Your task to perform on an android device: set an alarm Image 0: 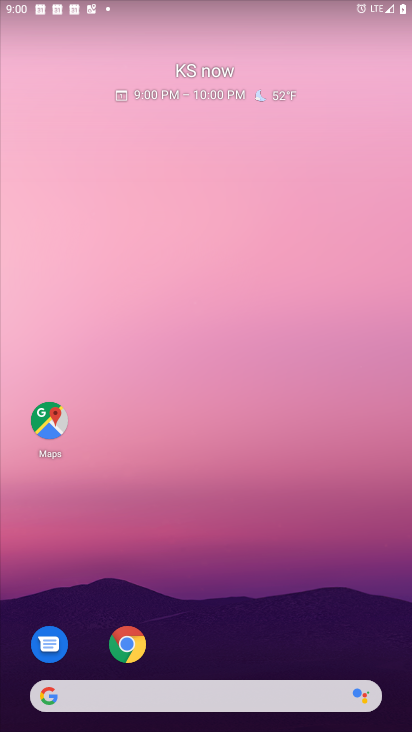
Step 0: drag from (375, 640) to (253, 119)
Your task to perform on an android device: set an alarm Image 1: 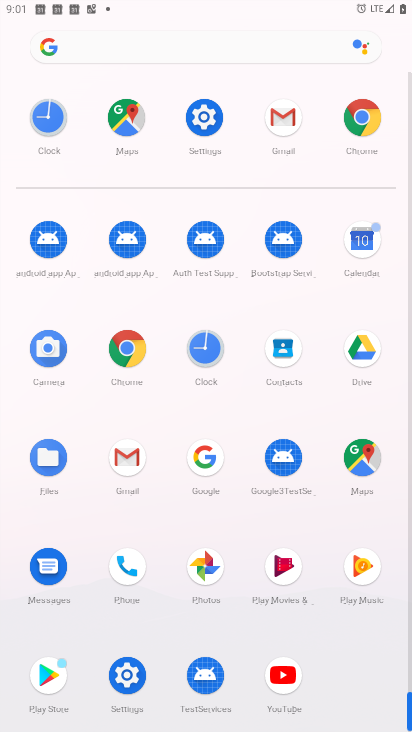
Step 1: click (202, 345)
Your task to perform on an android device: set an alarm Image 2: 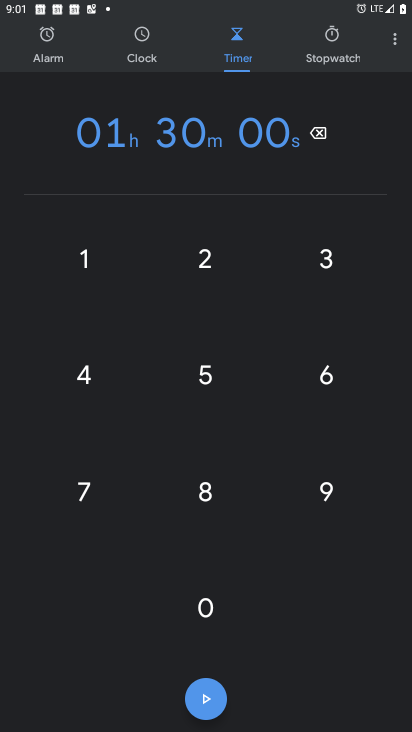
Step 2: click (47, 46)
Your task to perform on an android device: set an alarm Image 3: 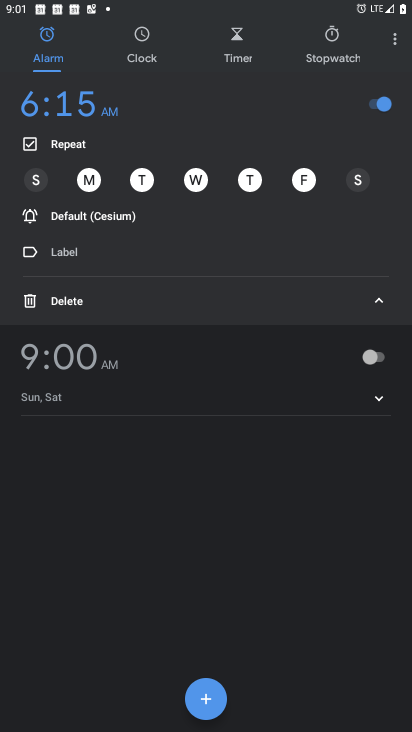
Step 3: click (356, 178)
Your task to perform on an android device: set an alarm Image 4: 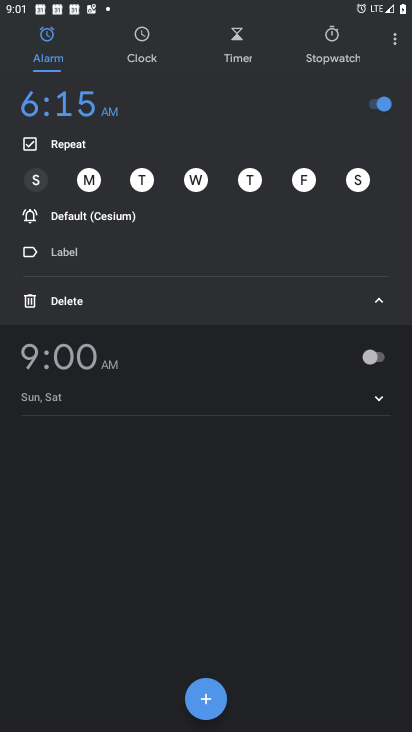
Step 4: click (380, 298)
Your task to perform on an android device: set an alarm Image 5: 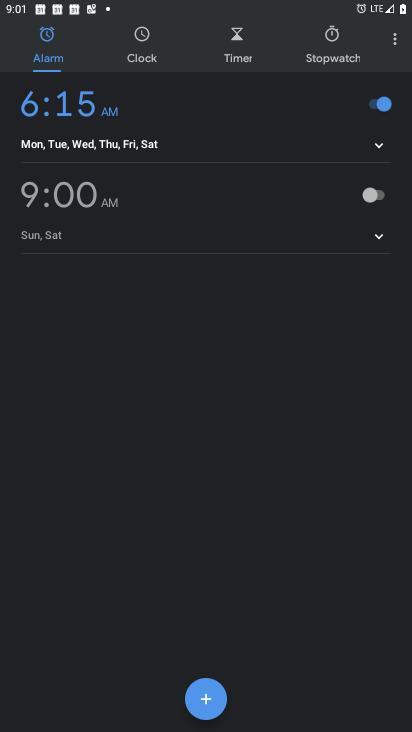
Step 5: click (75, 207)
Your task to perform on an android device: set an alarm Image 6: 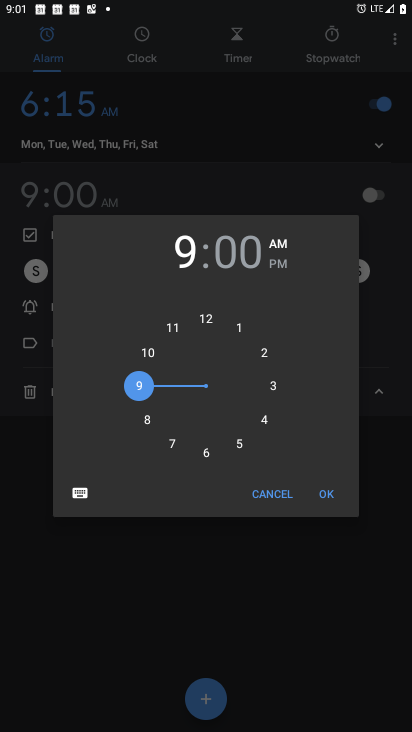
Step 6: click (206, 452)
Your task to perform on an android device: set an alarm Image 7: 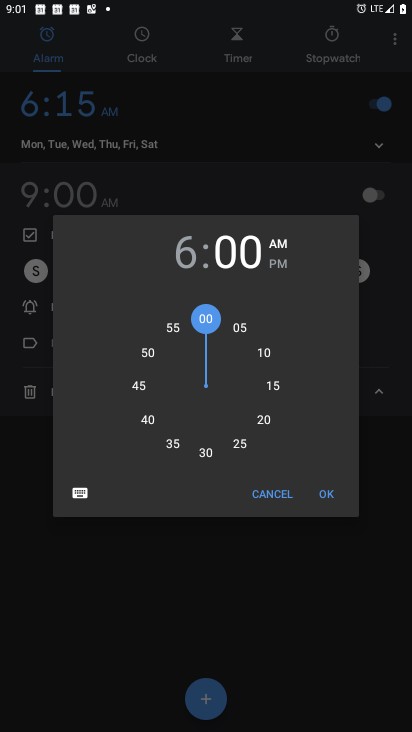
Step 7: click (259, 357)
Your task to perform on an android device: set an alarm Image 8: 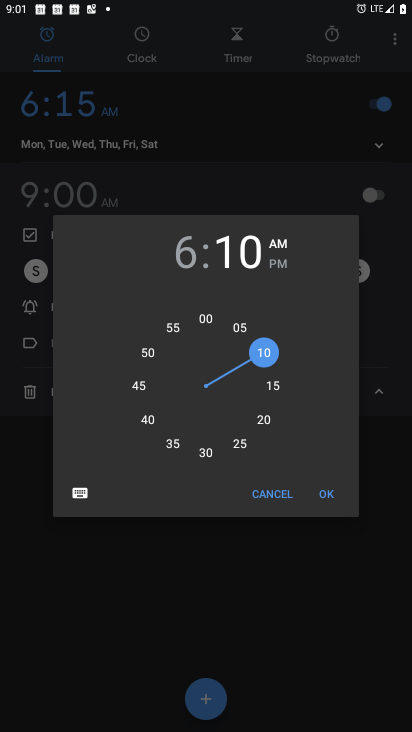
Step 8: click (323, 488)
Your task to perform on an android device: set an alarm Image 9: 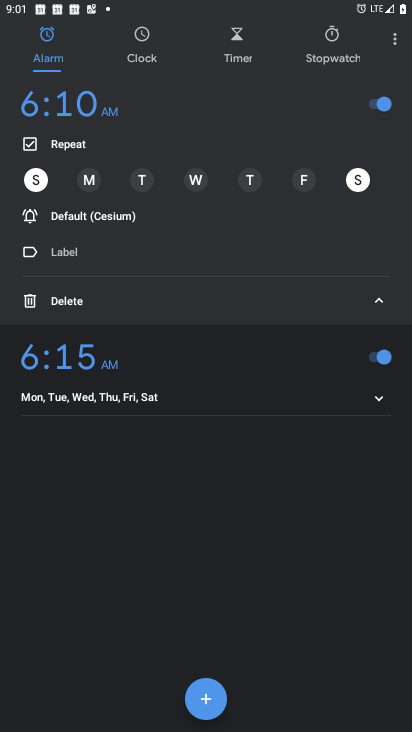
Step 9: click (381, 400)
Your task to perform on an android device: set an alarm Image 10: 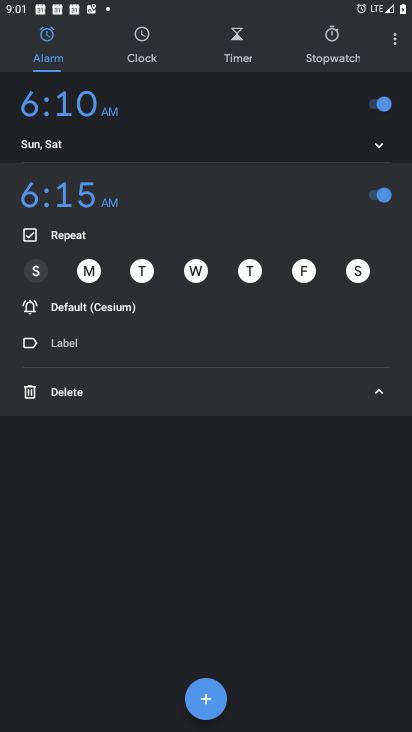
Step 10: click (381, 392)
Your task to perform on an android device: set an alarm Image 11: 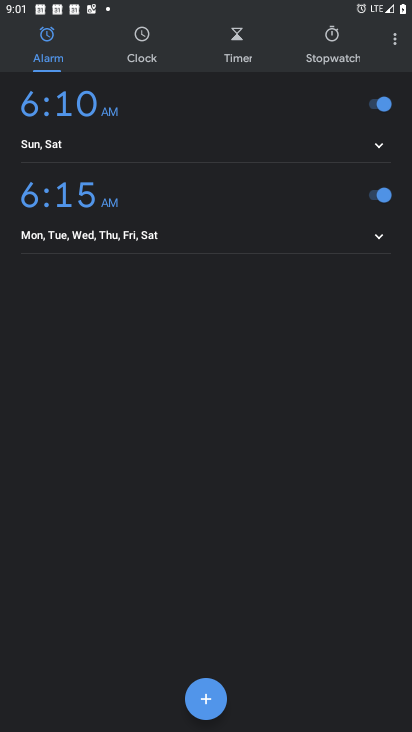
Step 11: task complete